Your task to perform on an android device: open wifi settings Image 0: 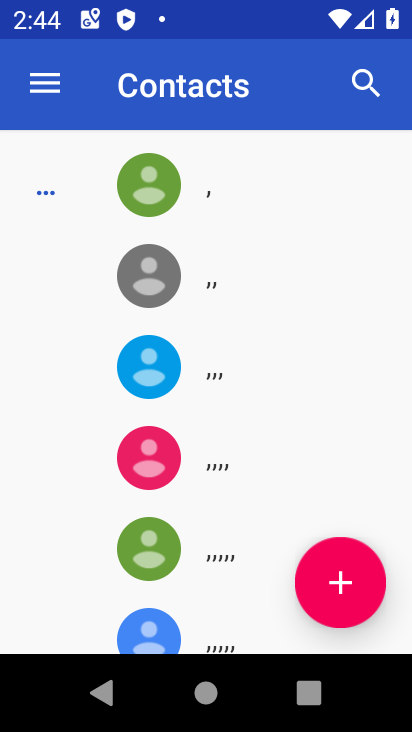
Step 0: press back button
Your task to perform on an android device: open wifi settings Image 1: 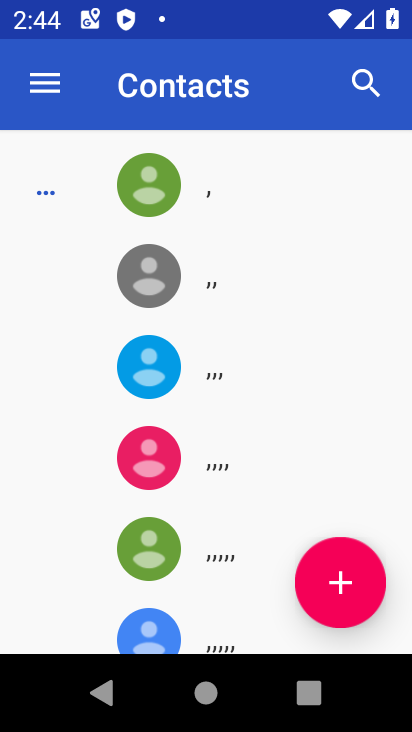
Step 1: press back button
Your task to perform on an android device: open wifi settings Image 2: 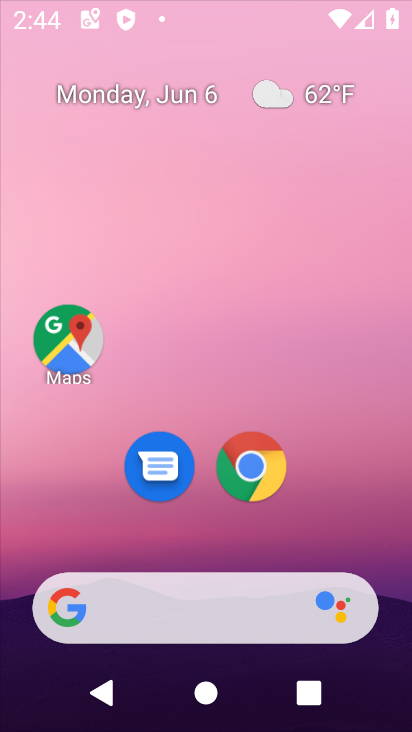
Step 2: press back button
Your task to perform on an android device: open wifi settings Image 3: 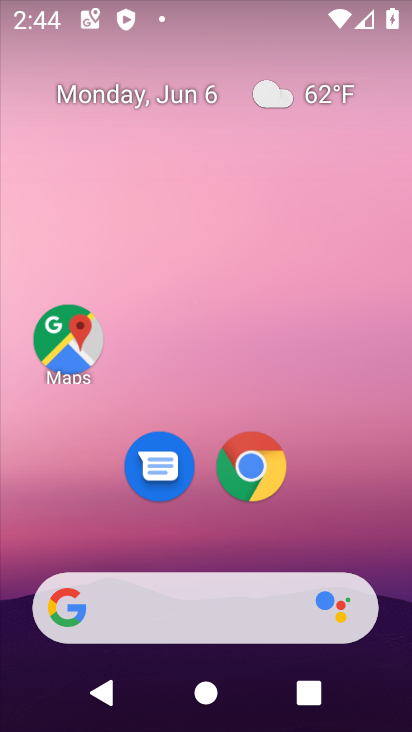
Step 3: drag from (247, 689) to (139, 92)
Your task to perform on an android device: open wifi settings Image 4: 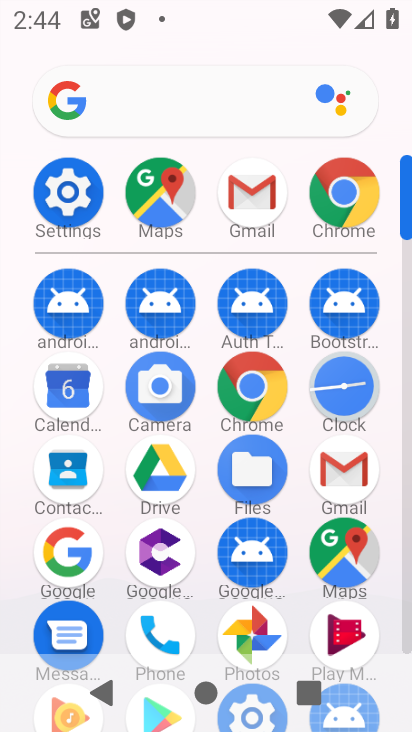
Step 4: click (50, 197)
Your task to perform on an android device: open wifi settings Image 5: 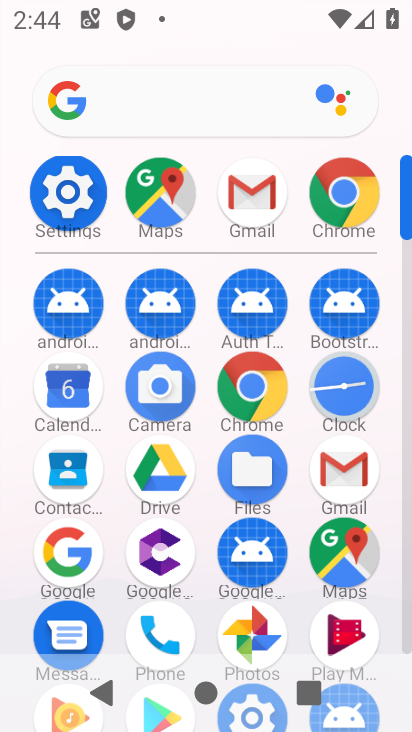
Step 5: click (64, 200)
Your task to perform on an android device: open wifi settings Image 6: 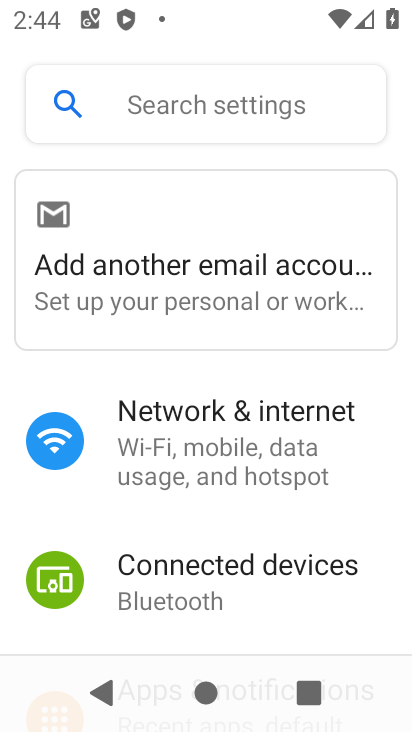
Step 6: click (64, 200)
Your task to perform on an android device: open wifi settings Image 7: 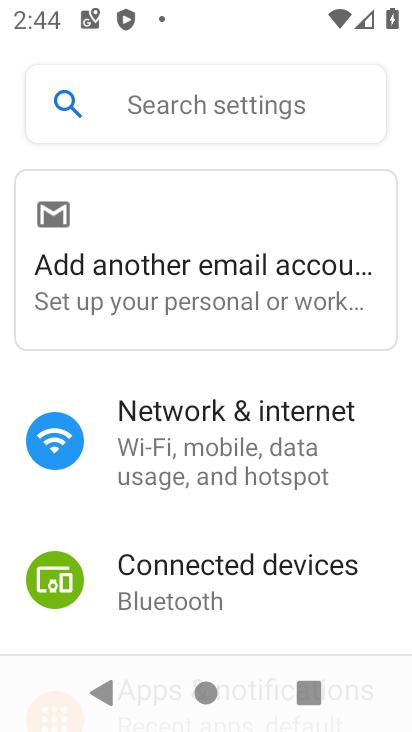
Step 7: click (248, 433)
Your task to perform on an android device: open wifi settings Image 8: 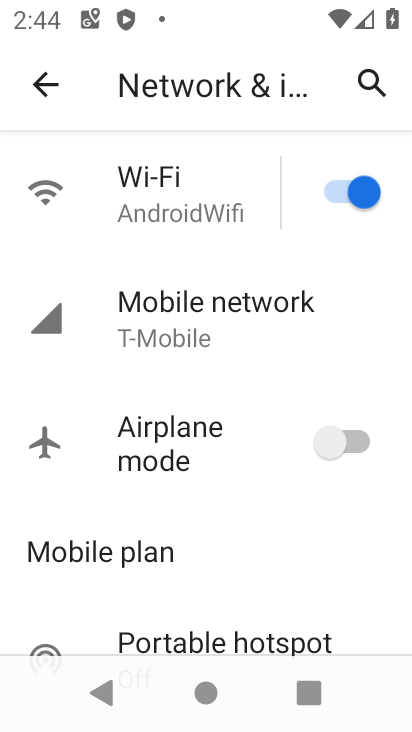
Step 8: task complete